Your task to perform on an android device: Go to Maps Image 0: 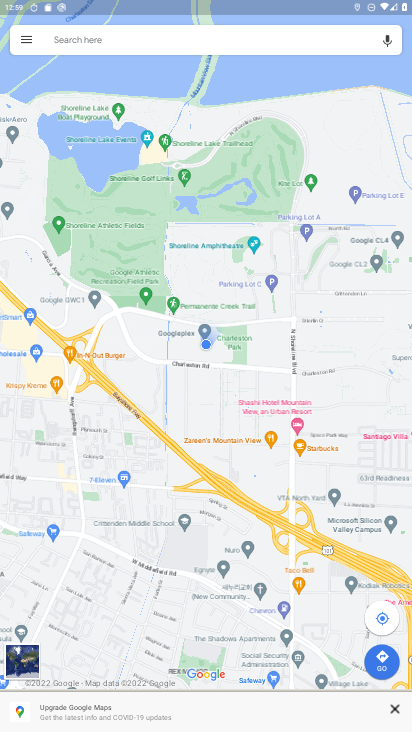
Step 0: press home button
Your task to perform on an android device: Go to Maps Image 1: 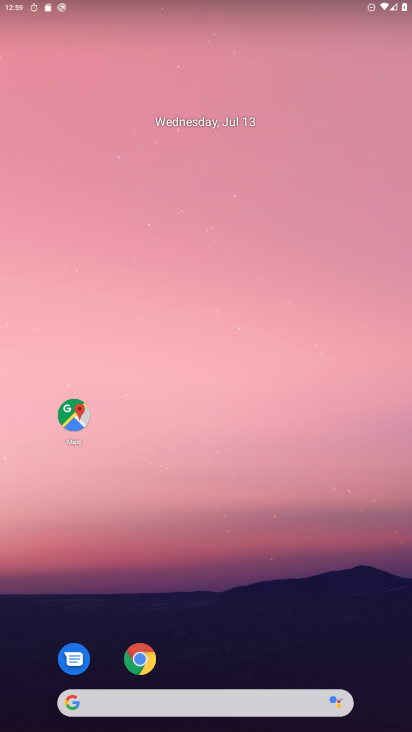
Step 1: drag from (235, 687) to (244, 124)
Your task to perform on an android device: Go to Maps Image 2: 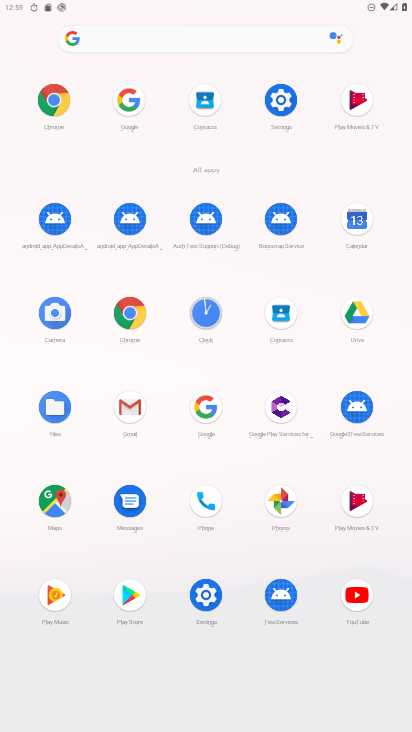
Step 2: click (56, 502)
Your task to perform on an android device: Go to Maps Image 3: 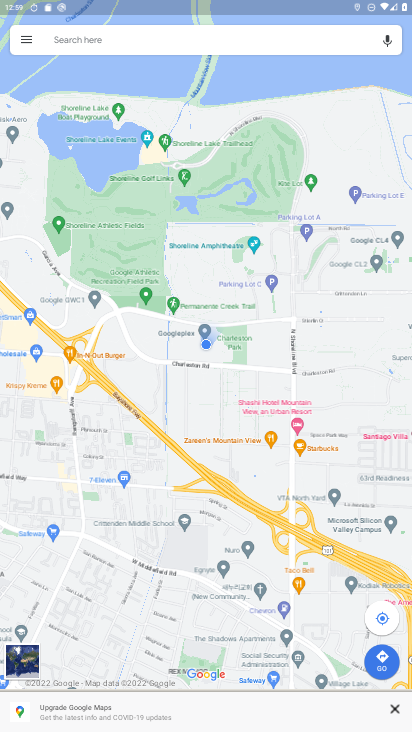
Step 3: task complete